Your task to perform on an android device: Empty the shopping cart on walmart.com. Search for panasonic triple a on walmart.com, select the first entry, and add it to the cart. Image 0: 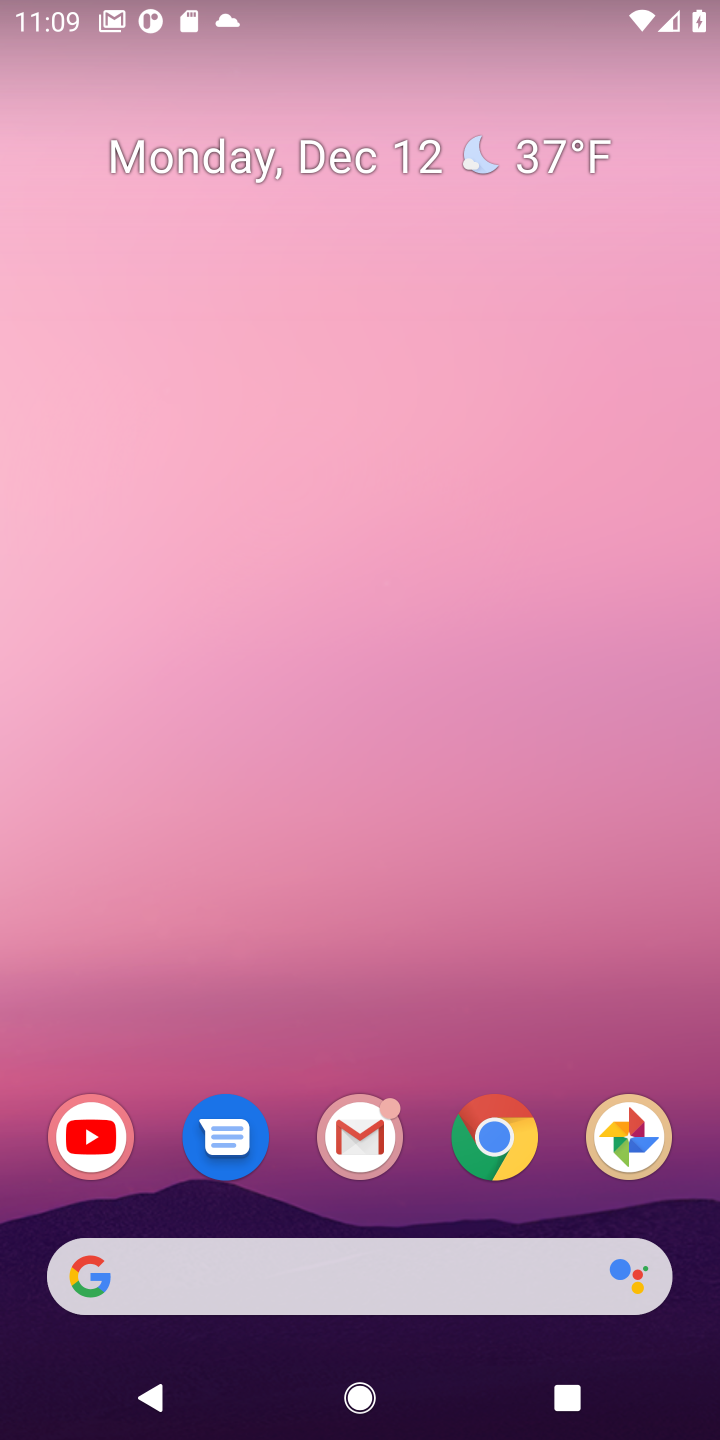
Step 0: click (414, 1274)
Your task to perform on an android device: Empty the shopping cart on walmart.com. Search for panasonic triple a on walmart.com, select the first entry, and add it to the cart. Image 1: 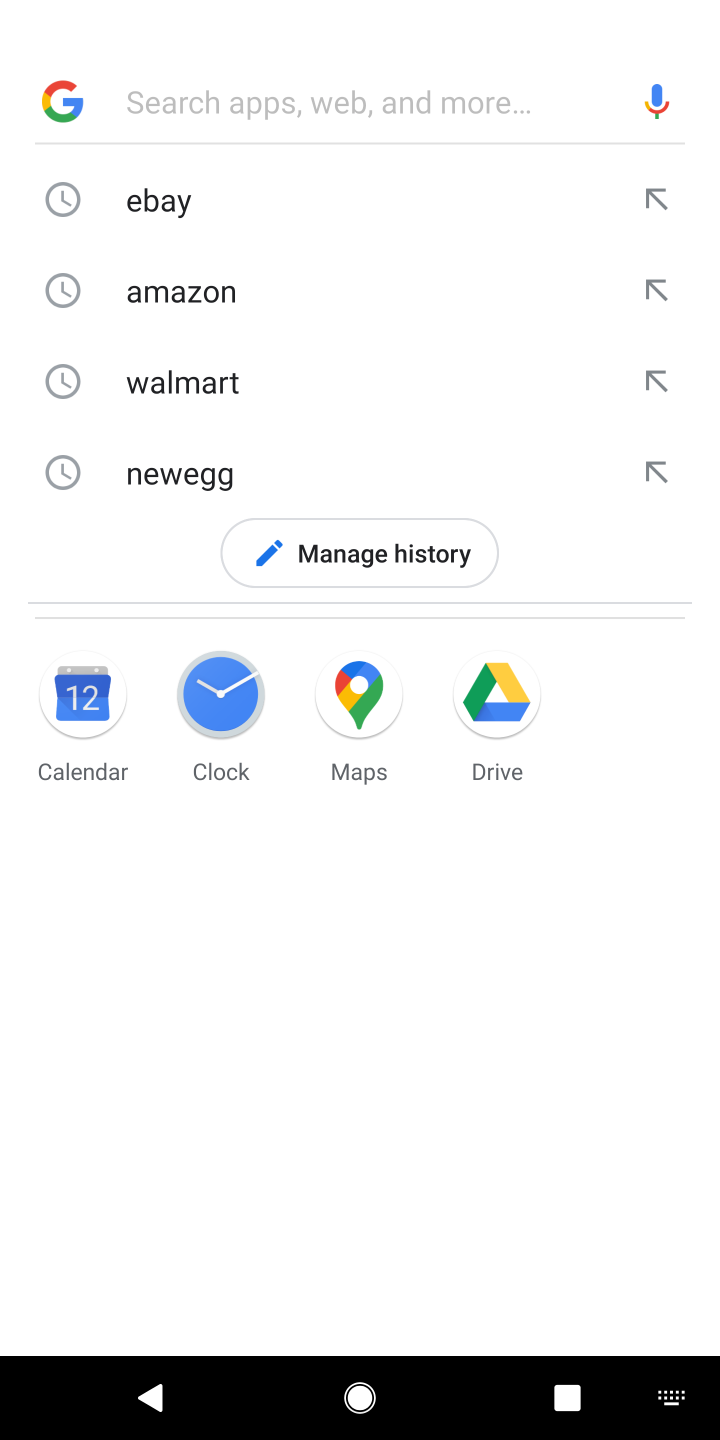
Step 1: click (193, 408)
Your task to perform on an android device: Empty the shopping cart on walmart.com. Search for panasonic triple a on walmart.com, select the first entry, and add it to the cart. Image 2: 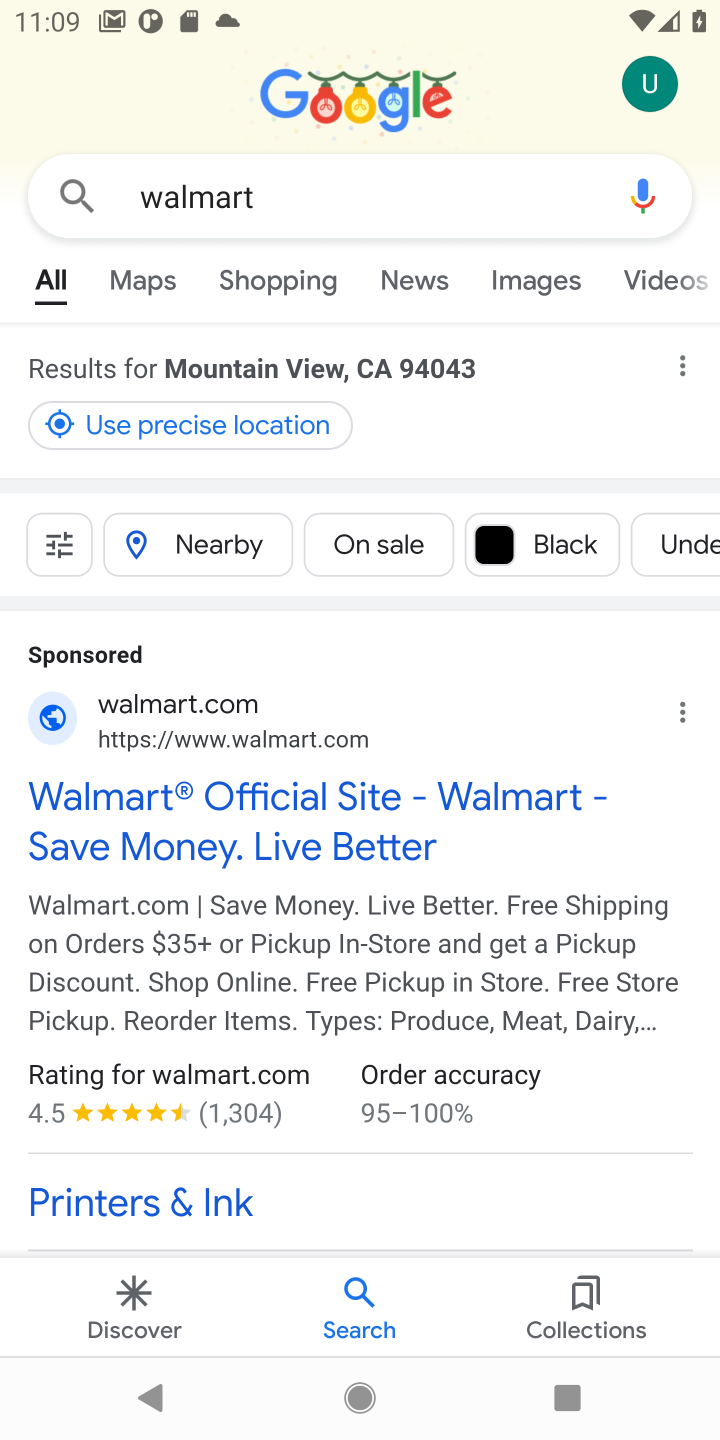
Step 2: click (184, 815)
Your task to perform on an android device: Empty the shopping cart on walmart.com. Search for panasonic triple a on walmart.com, select the first entry, and add it to the cart. Image 3: 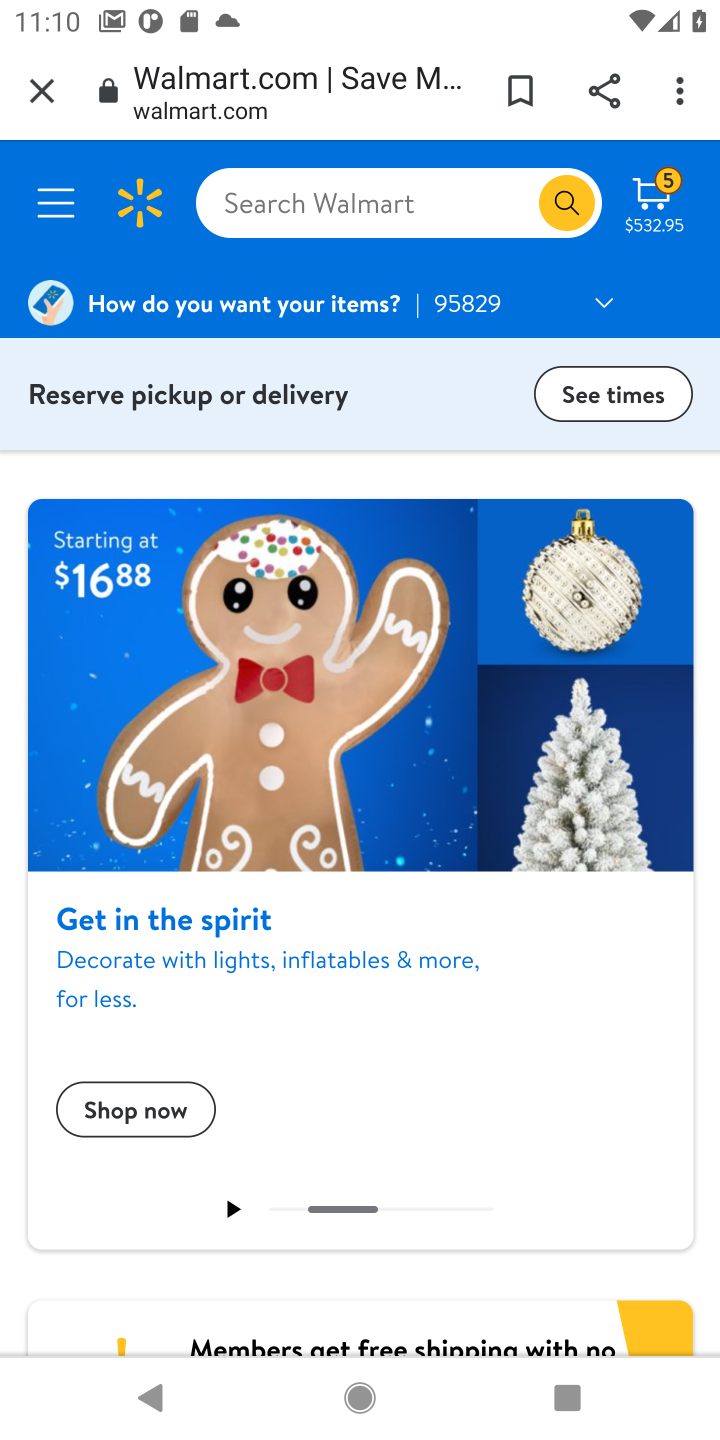
Step 3: click (286, 187)
Your task to perform on an android device: Empty the shopping cart on walmart.com. Search for panasonic triple a on walmart.com, select the first entry, and add it to the cart. Image 4: 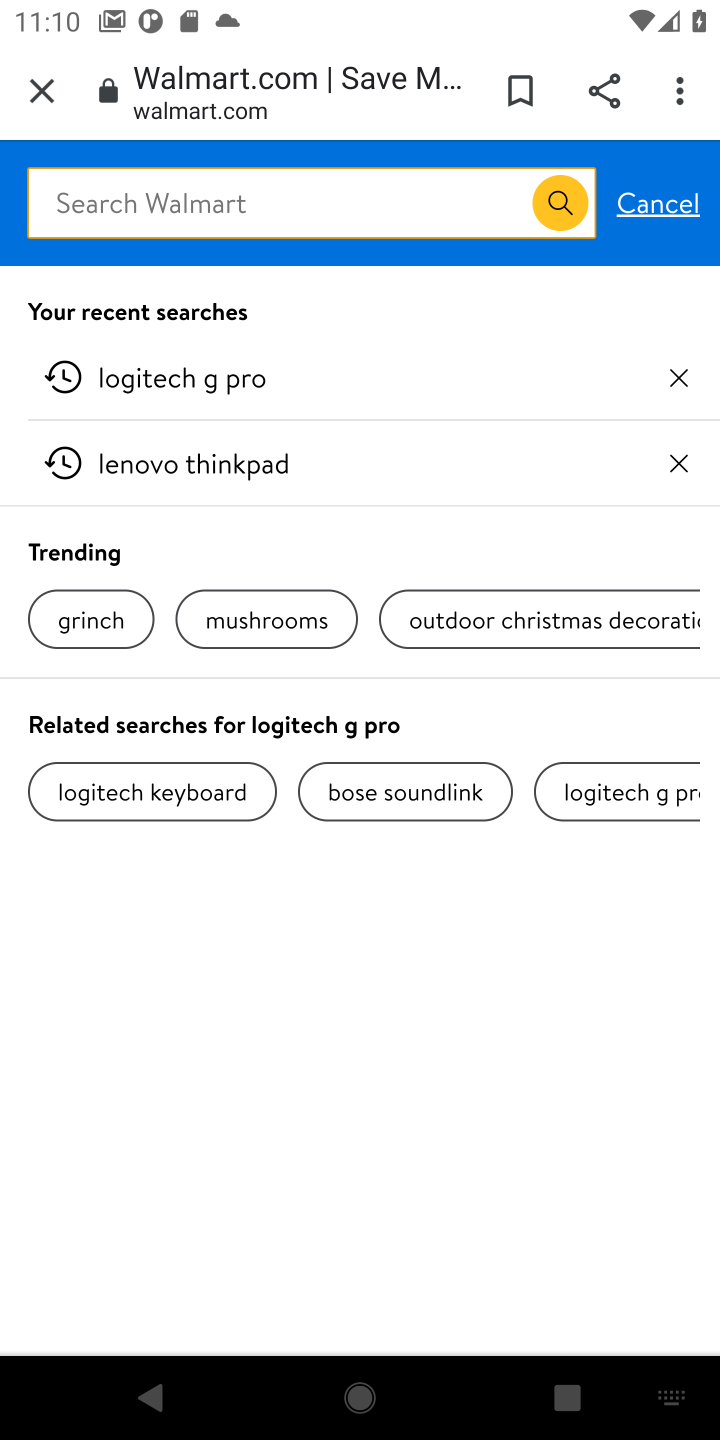
Step 4: type "panasonic triple a"
Your task to perform on an android device: Empty the shopping cart on walmart.com. Search for panasonic triple a on walmart.com, select the first entry, and add it to the cart. Image 5: 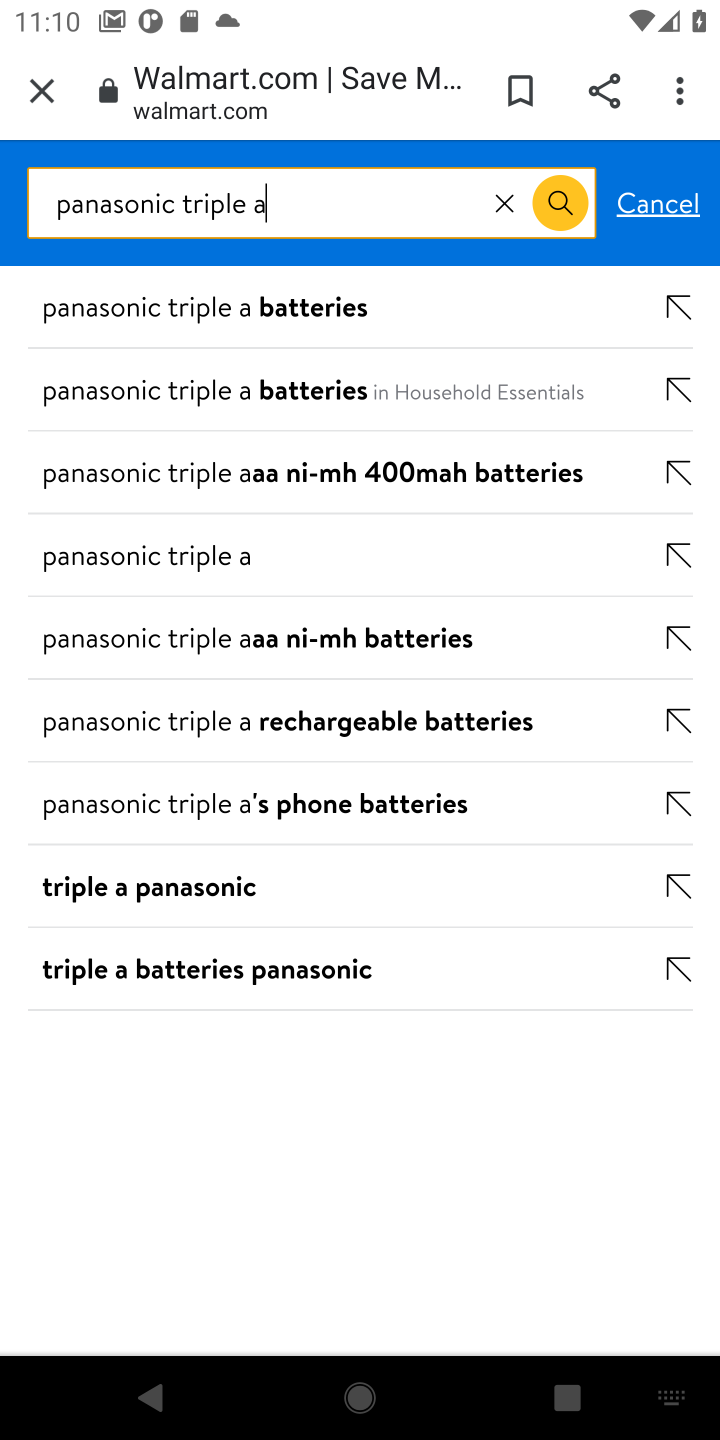
Step 5: click (388, 322)
Your task to perform on an android device: Empty the shopping cart on walmart.com. Search for panasonic triple a on walmart.com, select the first entry, and add it to the cart. Image 6: 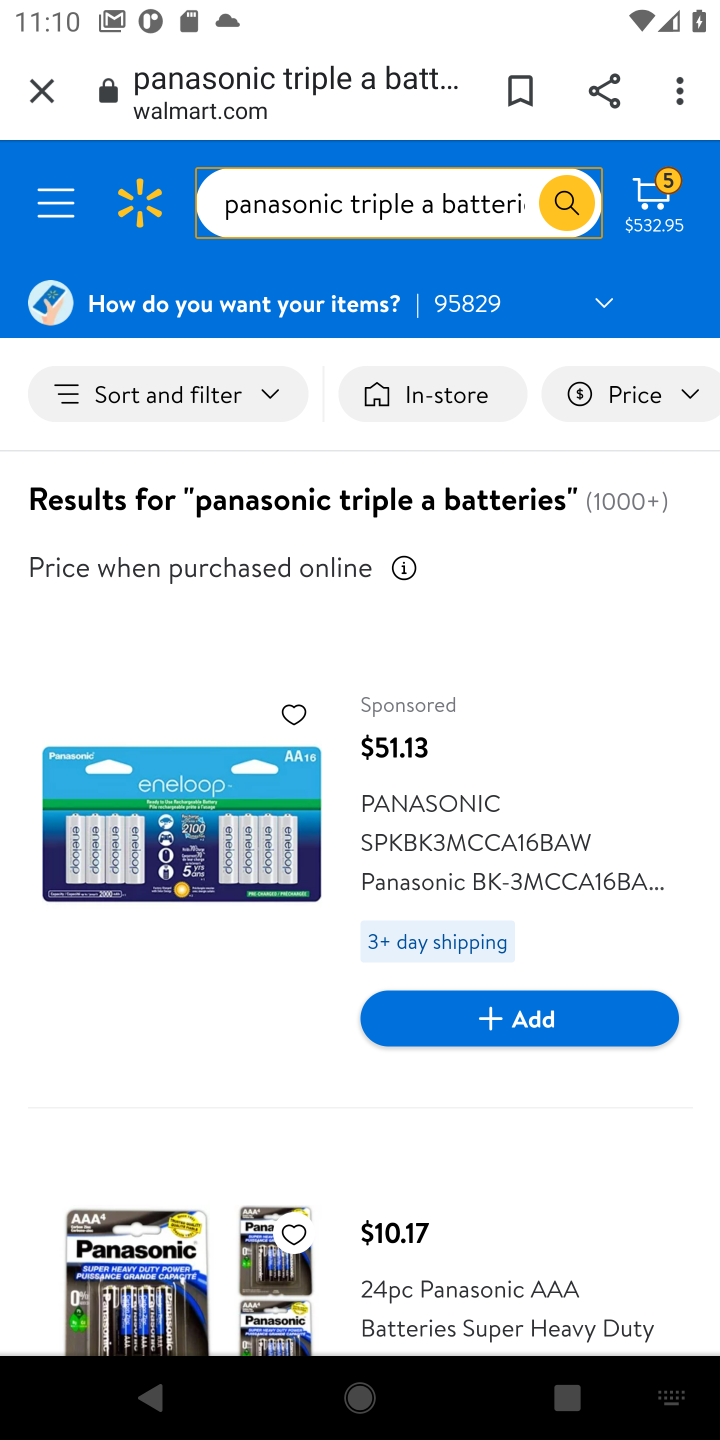
Step 6: click (437, 1043)
Your task to perform on an android device: Empty the shopping cart on walmart.com. Search for panasonic triple a on walmart.com, select the first entry, and add it to the cart. Image 7: 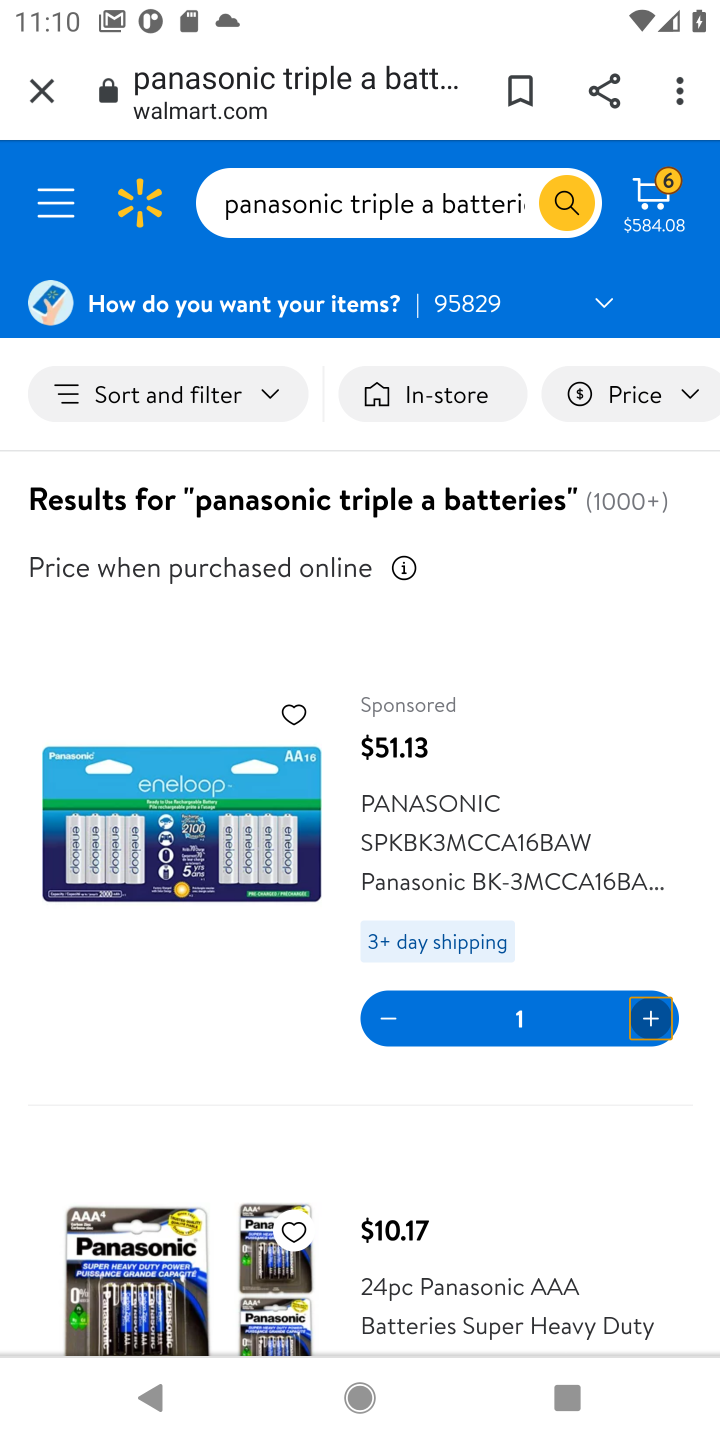
Step 7: task complete